Your task to perform on an android device: turn notification dots on Image 0: 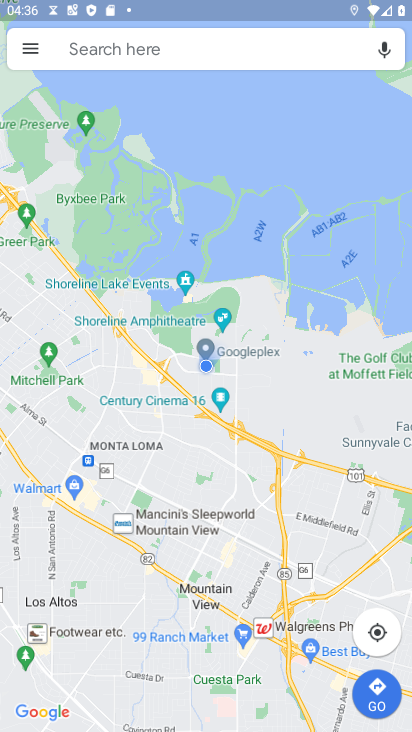
Step 0: press home button
Your task to perform on an android device: turn notification dots on Image 1: 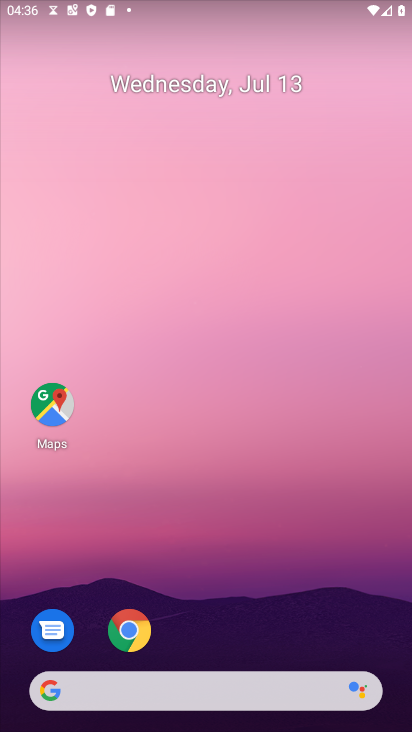
Step 1: drag from (144, 661) to (253, 1)
Your task to perform on an android device: turn notification dots on Image 2: 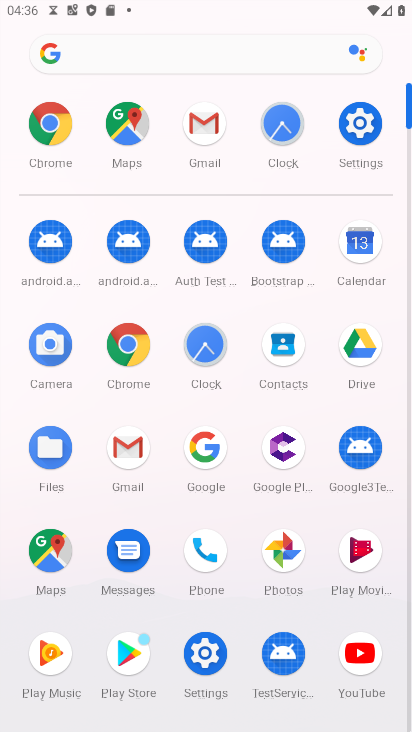
Step 2: click (352, 120)
Your task to perform on an android device: turn notification dots on Image 3: 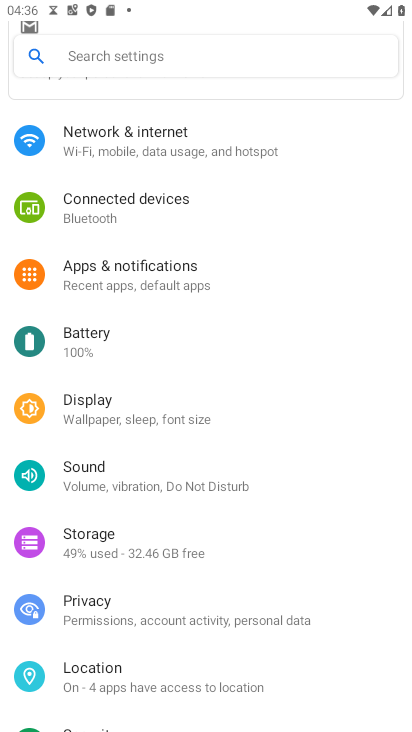
Step 3: click (151, 278)
Your task to perform on an android device: turn notification dots on Image 4: 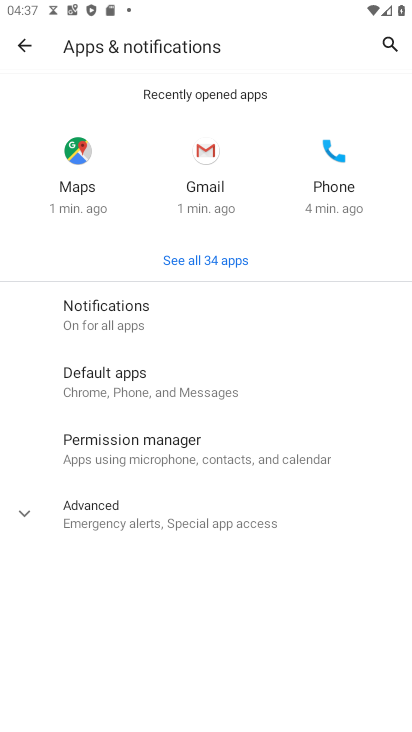
Step 4: click (139, 326)
Your task to perform on an android device: turn notification dots on Image 5: 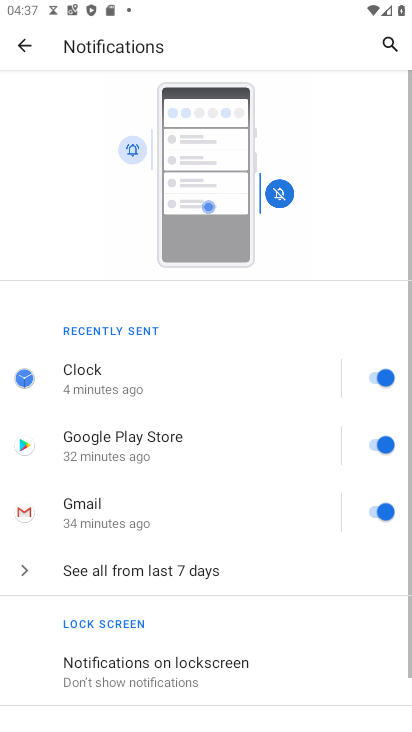
Step 5: drag from (212, 650) to (248, 99)
Your task to perform on an android device: turn notification dots on Image 6: 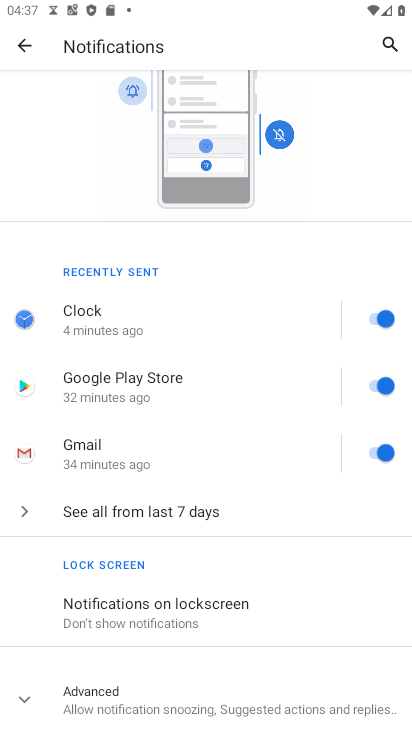
Step 6: click (154, 709)
Your task to perform on an android device: turn notification dots on Image 7: 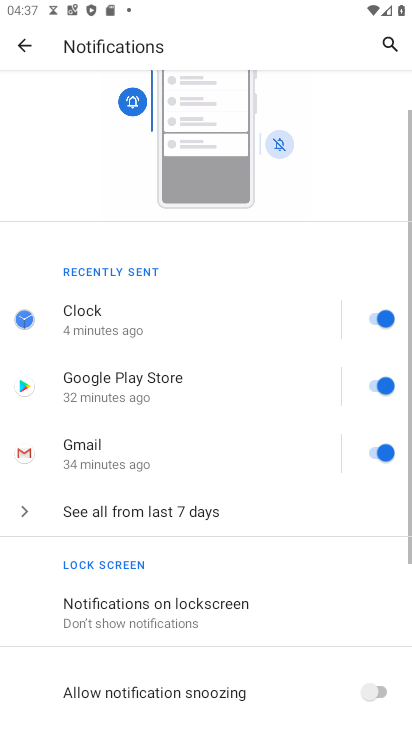
Step 7: task complete